Your task to perform on an android device: Go to notification settings Image 0: 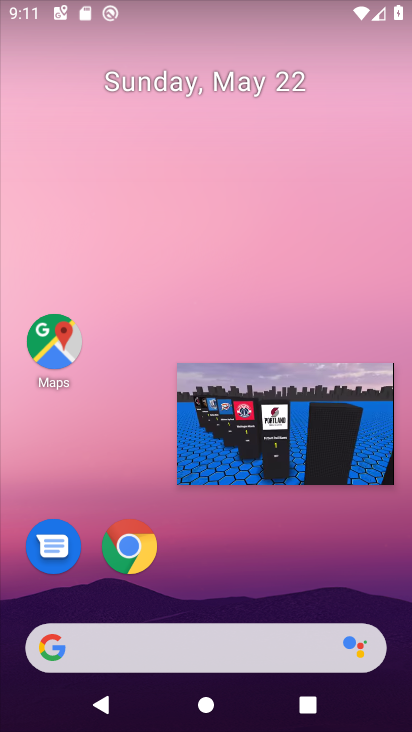
Step 0: click (251, 652)
Your task to perform on an android device: Go to notification settings Image 1: 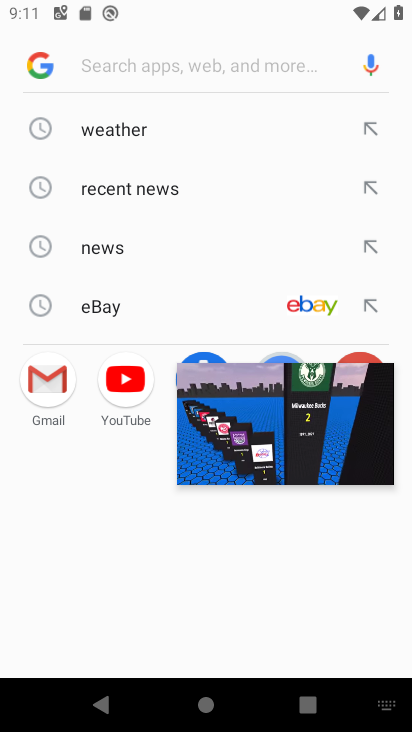
Step 1: press home button
Your task to perform on an android device: Go to notification settings Image 2: 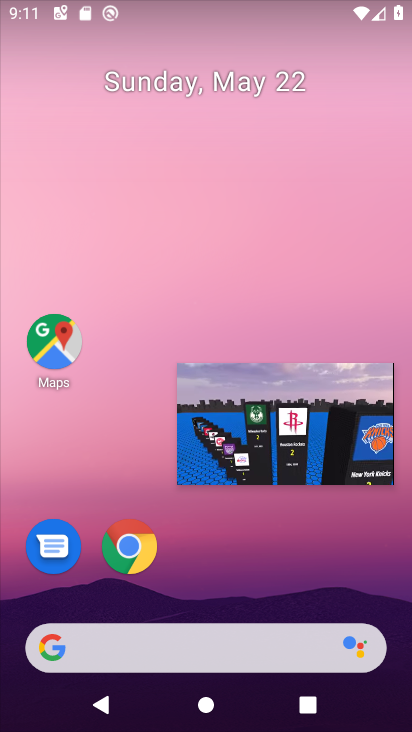
Step 2: drag from (343, 534) to (336, 110)
Your task to perform on an android device: Go to notification settings Image 3: 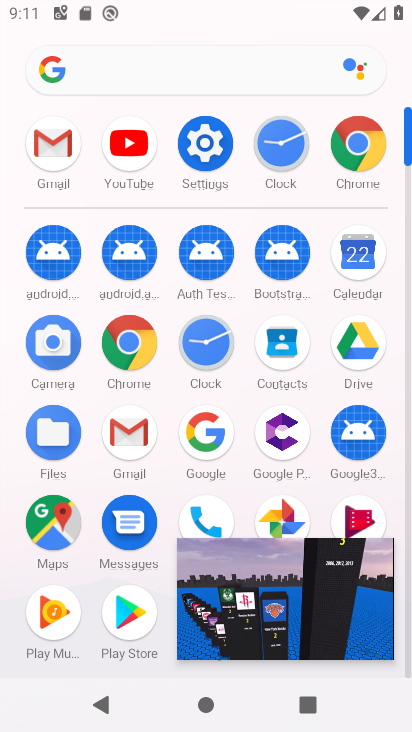
Step 3: click (204, 156)
Your task to perform on an android device: Go to notification settings Image 4: 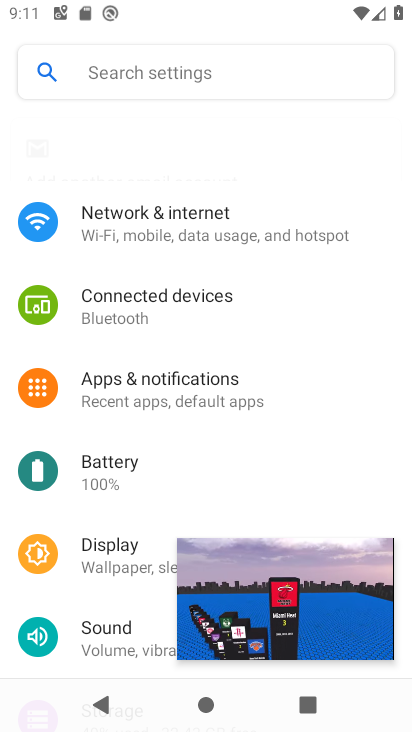
Step 4: drag from (326, 453) to (331, 320)
Your task to perform on an android device: Go to notification settings Image 5: 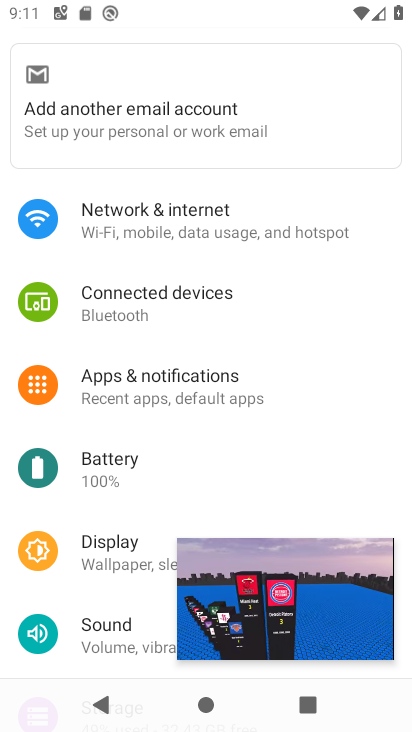
Step 5: drag from (343, 450) to (350, 314)
Your task to perform on an android device: Go to notification settings Image 6: 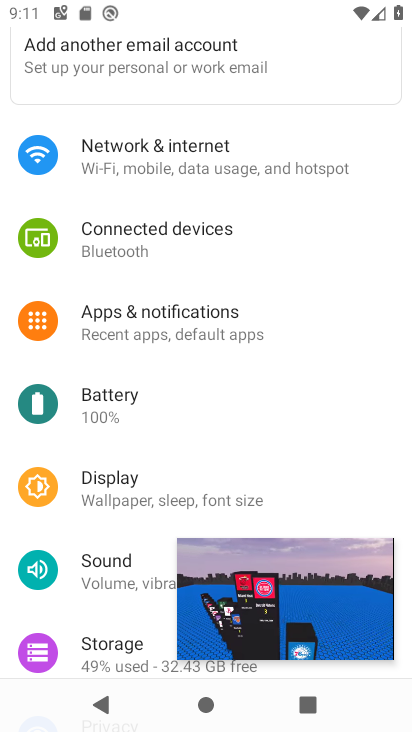
Step 6: drag from (322, 565) to (159, 728)
Your task to perform on an android device: Go to notification settings Image 7: 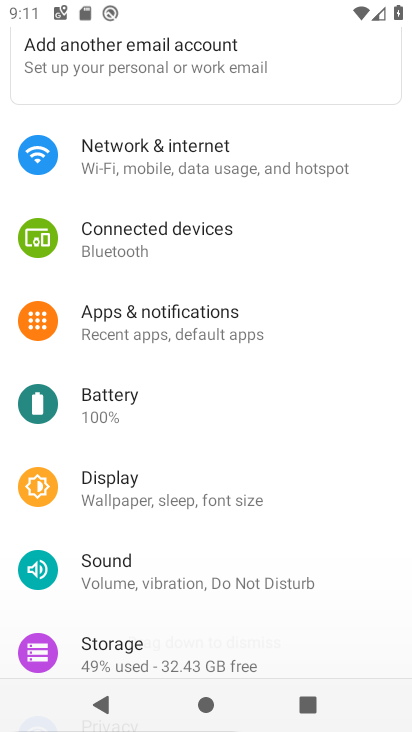
Step 7: drag from (320, 479) to (319, 327)
Your task to perform on an android device: Go to notification settings Image 8: 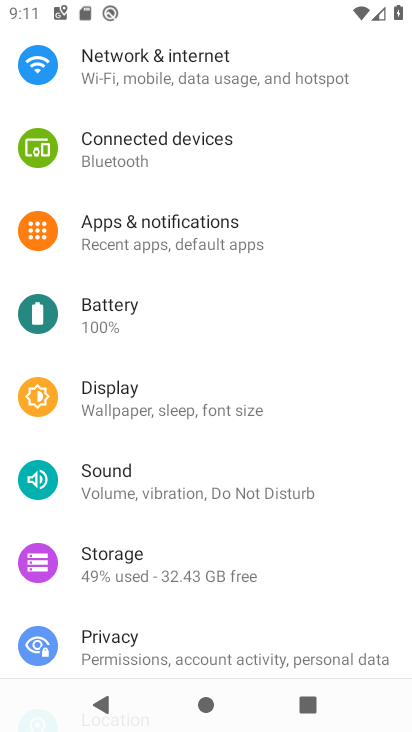
Step 8: drag from (338, 534) to (341, 416)
Your task to perform on an android device: Go to notification settings Image 9: 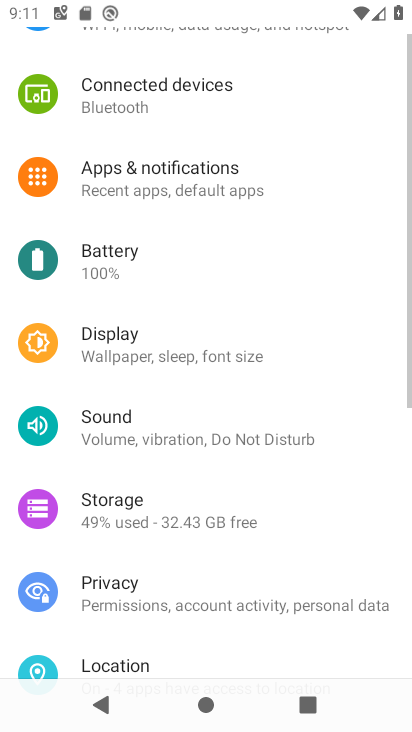
Step 9: drag from (329, 575) to (331, 472)
Your task to perform on an android device: Go to notification settings Image 10: 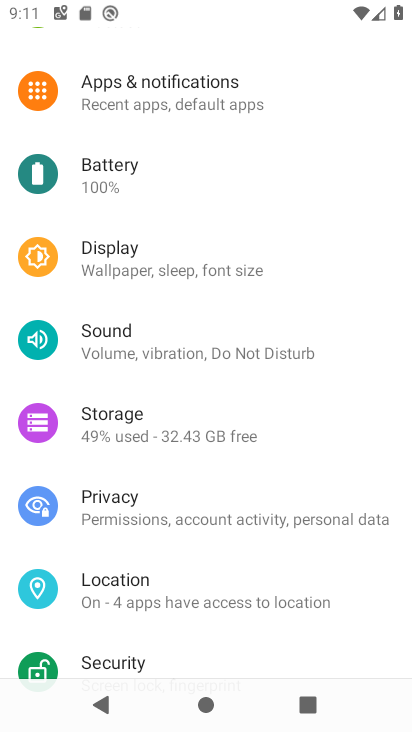
Step 10: drag from (327, 295) to (328, 429)
Your task to perform on an android device: Go to notification settings Image 11: 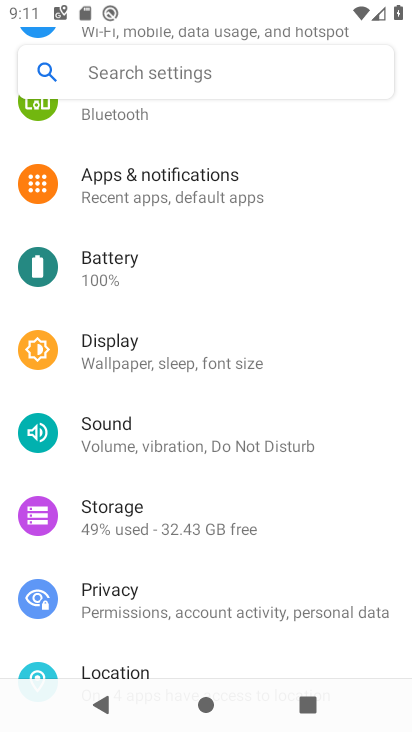
Step 11: drag from (327, 275) to (332, 407)
Your task to perform on an android device: Go to notification settings Image 12: 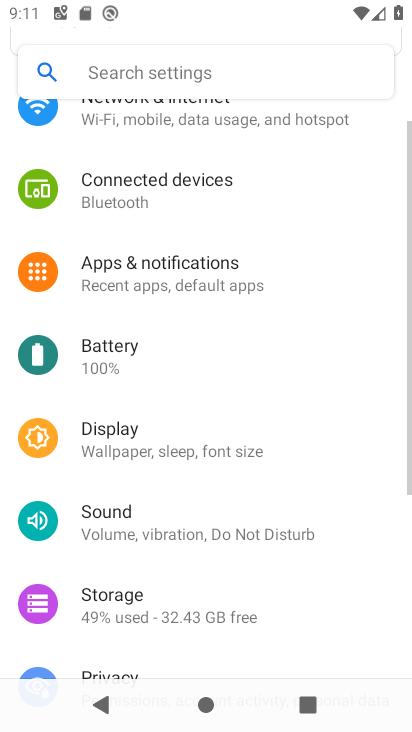
Step 12: click (243, 277)
Your task to perform on an android device: Go to notification settings Image 13: 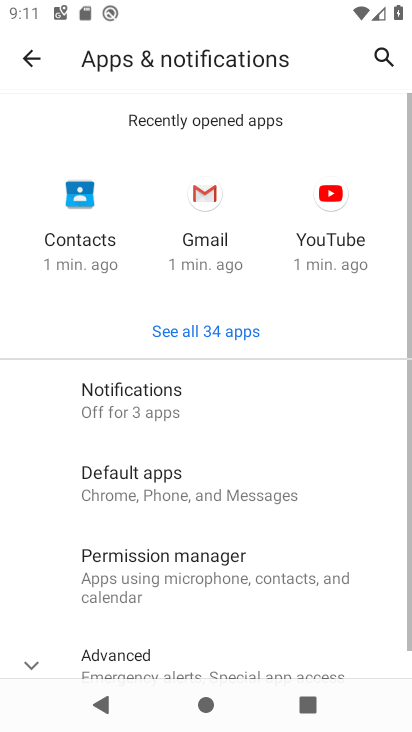
Step 13: click (206, 431)
Your task to perform on an android device: Go to notification settings Image 14: 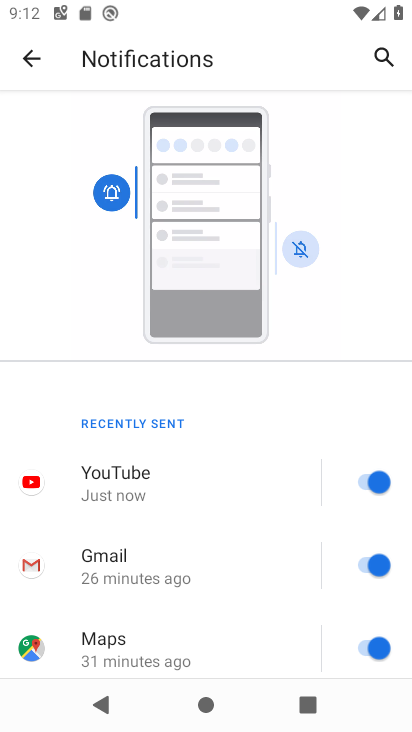
Step 14: task complete